Your task to perform on an android device: check battery use Image 0: 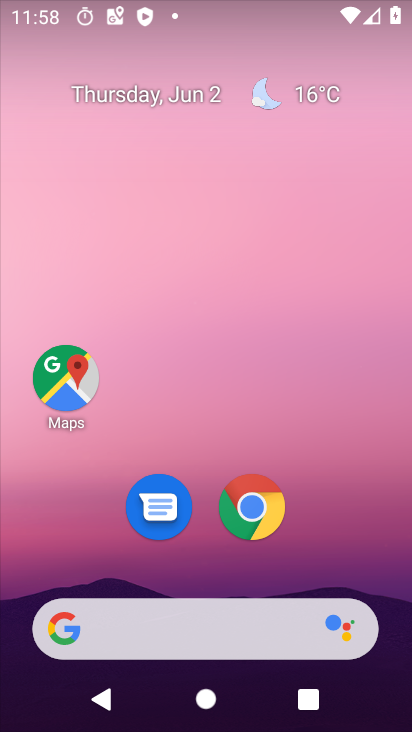
Step 0: drag from (393, 642) to (345, 118)
Your task to perform on an android device: check battery use Image 1: 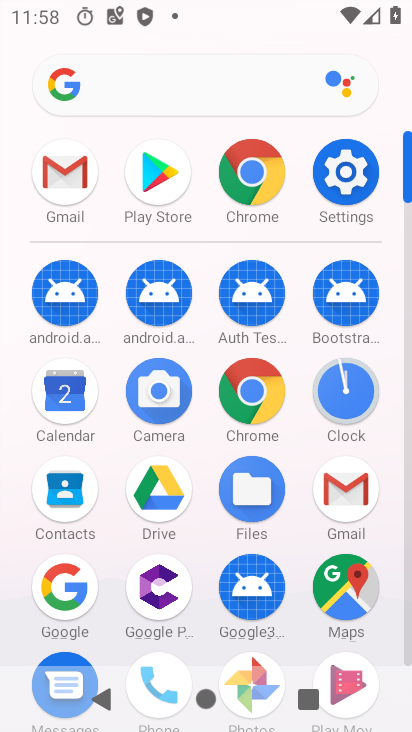
Step 1: click (327, 174)
Your task to perform on an android device: check battery use Image 2: 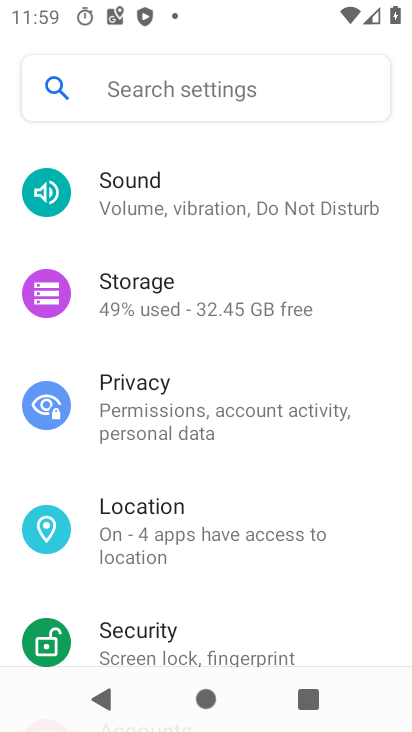
Step 2: drag from (211, 189) to (269, 574)
Your task to perform on an android device: check battery use Image 3: 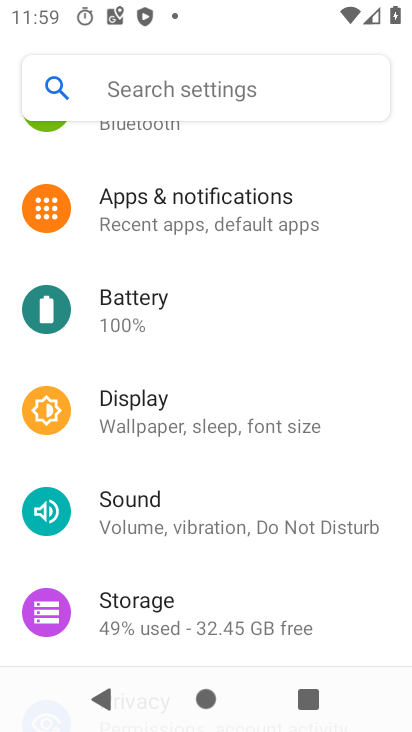
Step 3: click (164, 286)
Your task to perform on an android device: check battery use Image 4: 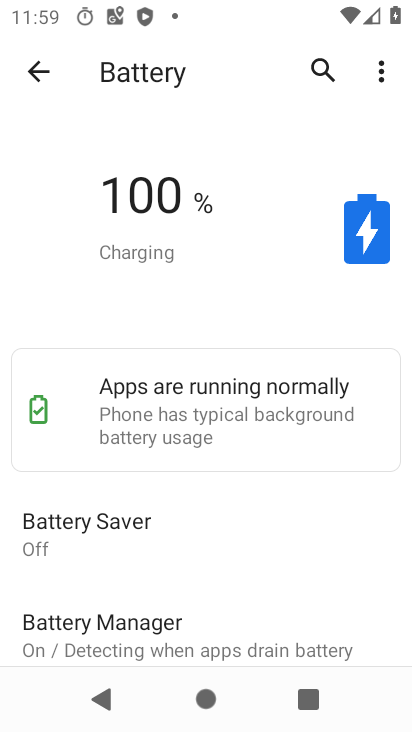
Step 4: click (388, 74)
Your task to perform on an android device: check battery use Image 5: 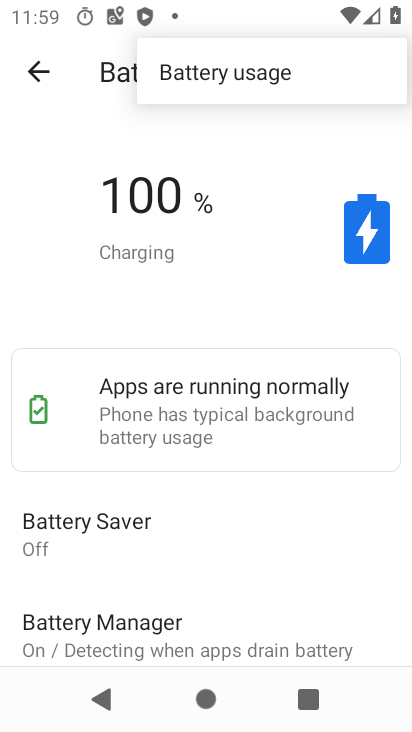
Step 5: click (270, 79)
Your task to perform on an android device: check battery use Image 6: 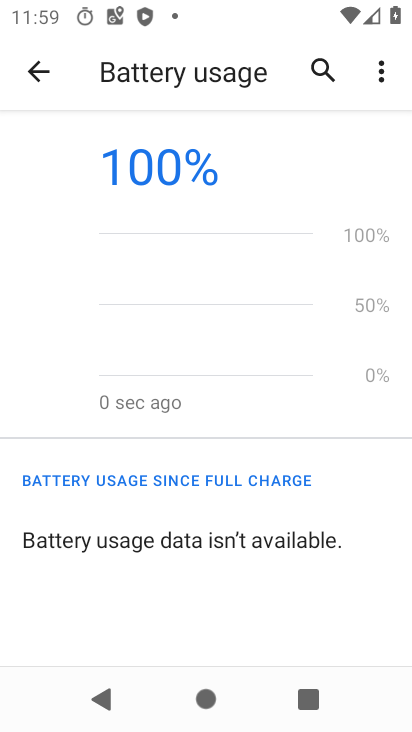
Step 6: task complete